Your task to perform on an android device: Open settings Image 0: 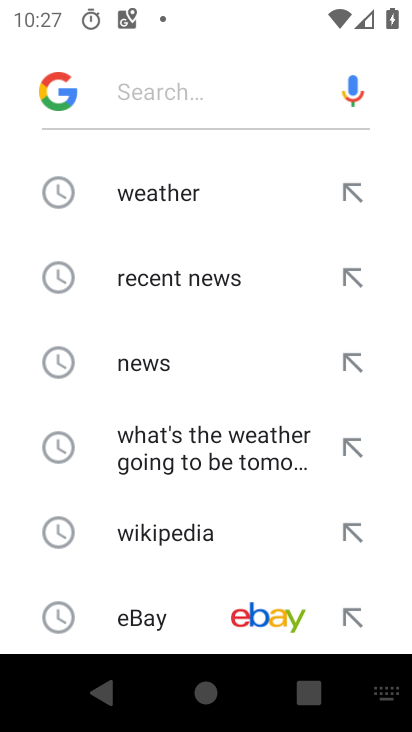
Step 0: press back button
Your task to perform on an android device: Open settings Image 1: 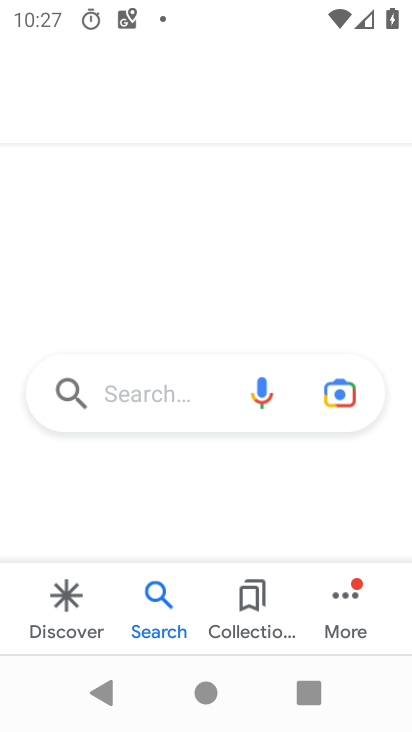
Step 1: press home button
Your task to perform on an android device: Open settings Image 2: 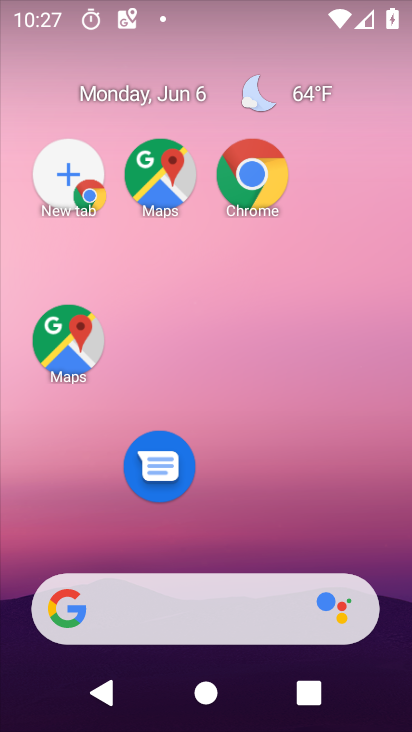
Step 2: drag from (226, 627) to (186, 191)
Your task to perform on an android device: Open settings Image 3: 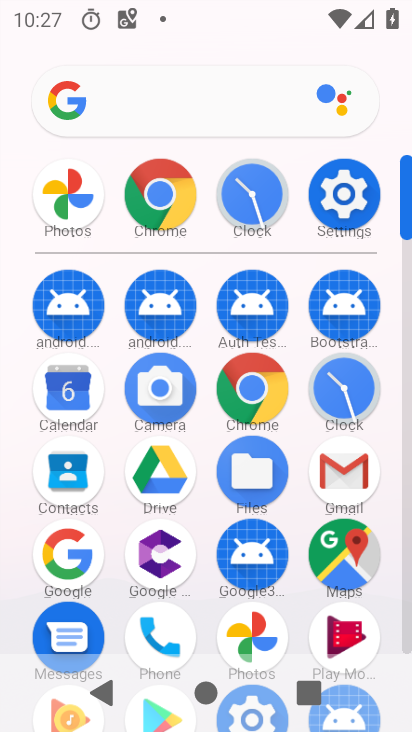
Step 3: click (354, 200)
Your task to perform on an android device: Open settings Image 4: 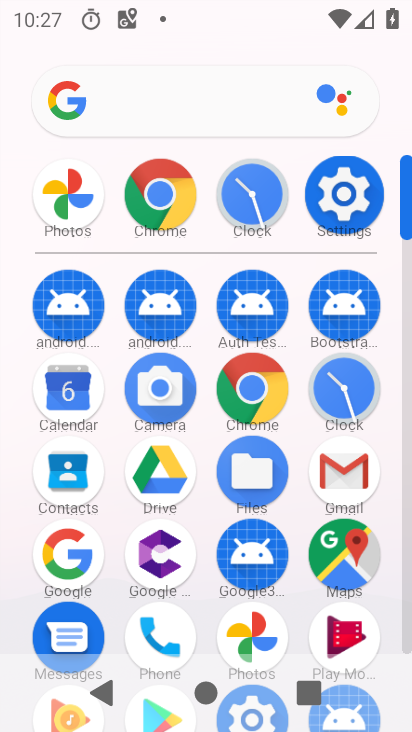
Step 4: click (353, 201)
Your task to perform on an android device: Open settings Image 5: 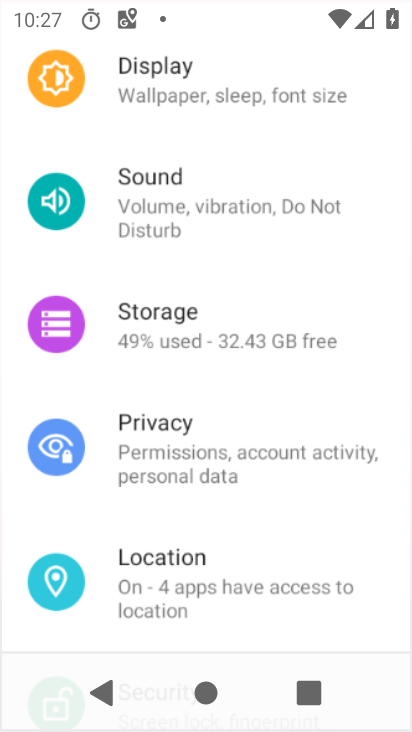
Step 5: click (353, 201)
Your task to perform on an android device: Open settings Image 6: 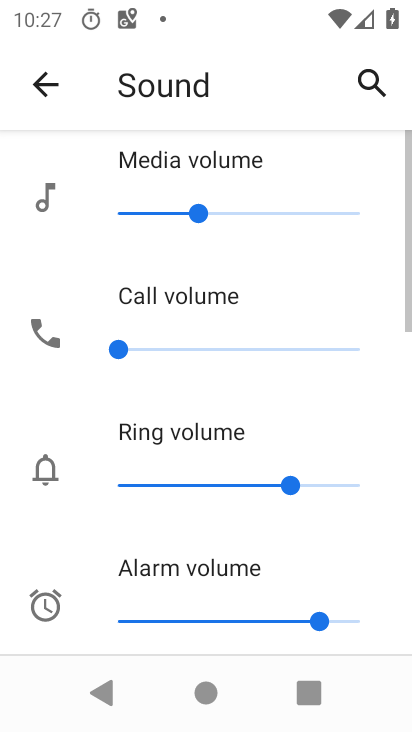
Step 6: task complete